Your task to perform on an android device: Turn on the flashlight Image 0: 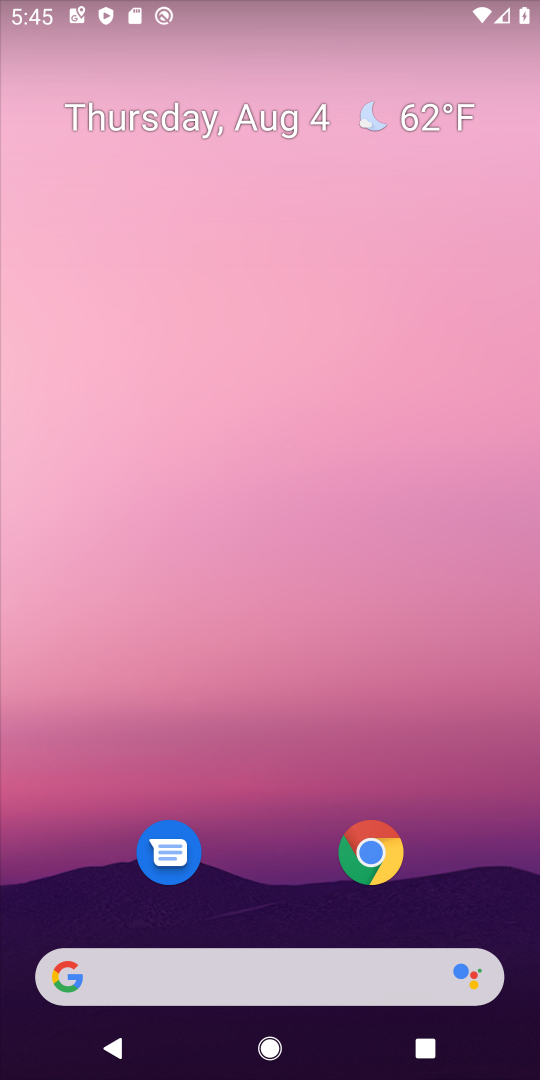
Step 0: drag from (236, 895) to (241, 192)
Your task to perform on an android device: Turn on the flashlight Image 1: 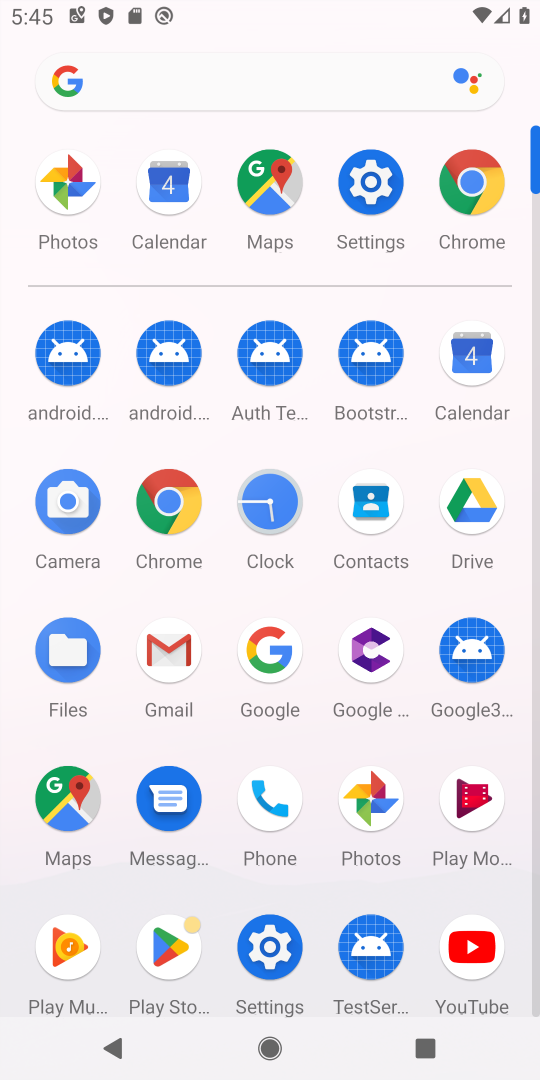
Step 1: click (373, 178)
Your task to perform on an android device: Turn on the flashlight Image 2: 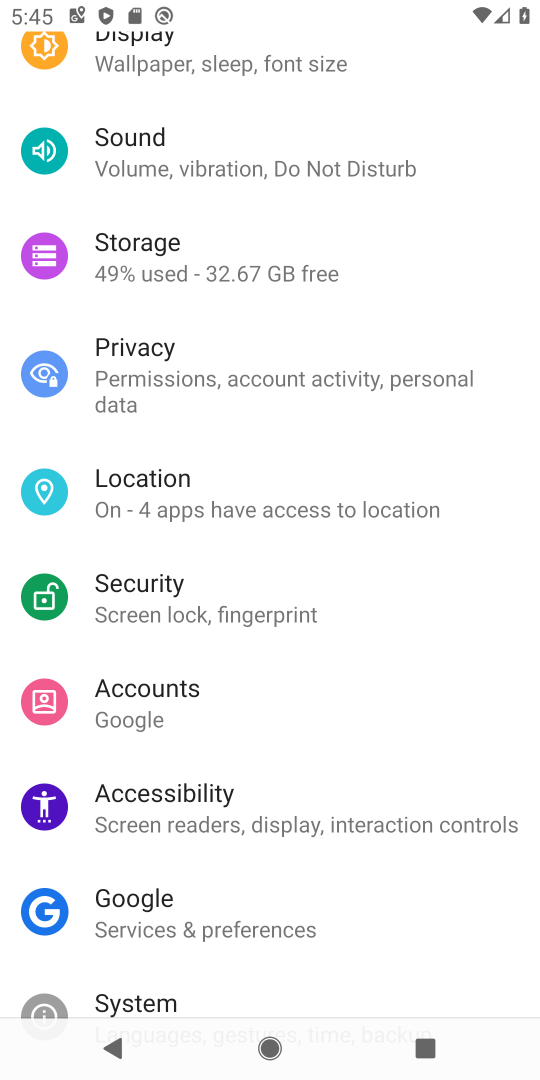
Step 2: task complete